Your task to perform on an android device: Search for the new iphone 13 pro on Etsy. Image 0: 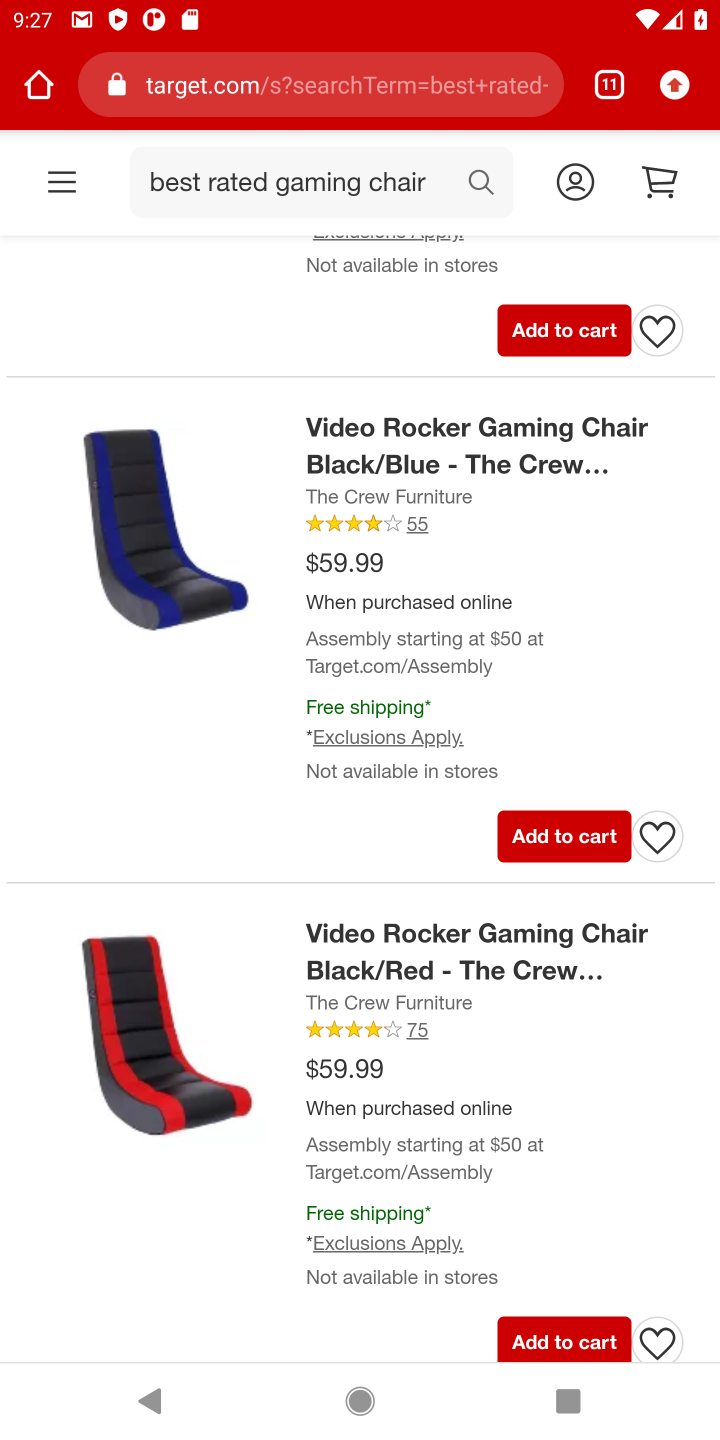
Step 0: press home button
Your task to perform on an android device: Search for the new iphone 13 pro on Etsy. Image 1: 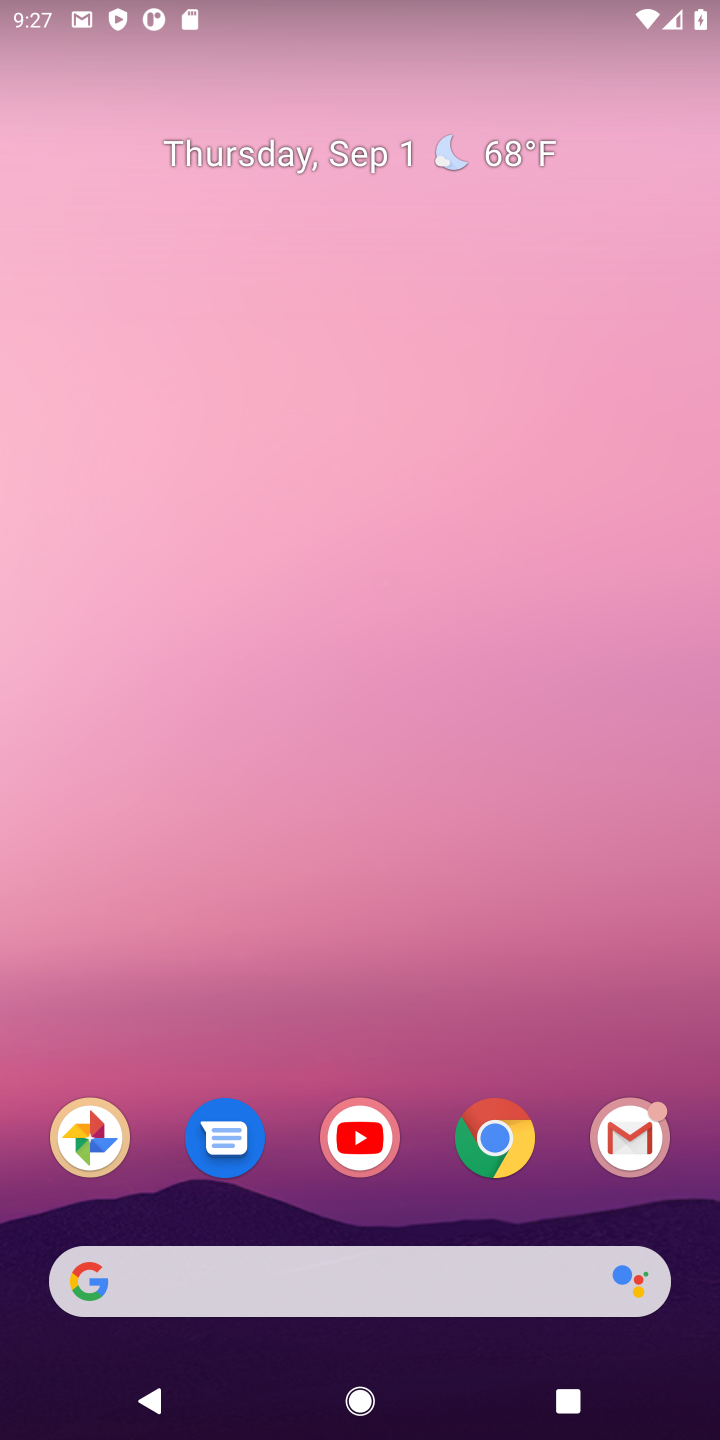
Step 1: click (498, 1143)
Your task to perform on an android device: Search for the new iphone 13 pro on Etsy. Image 2: 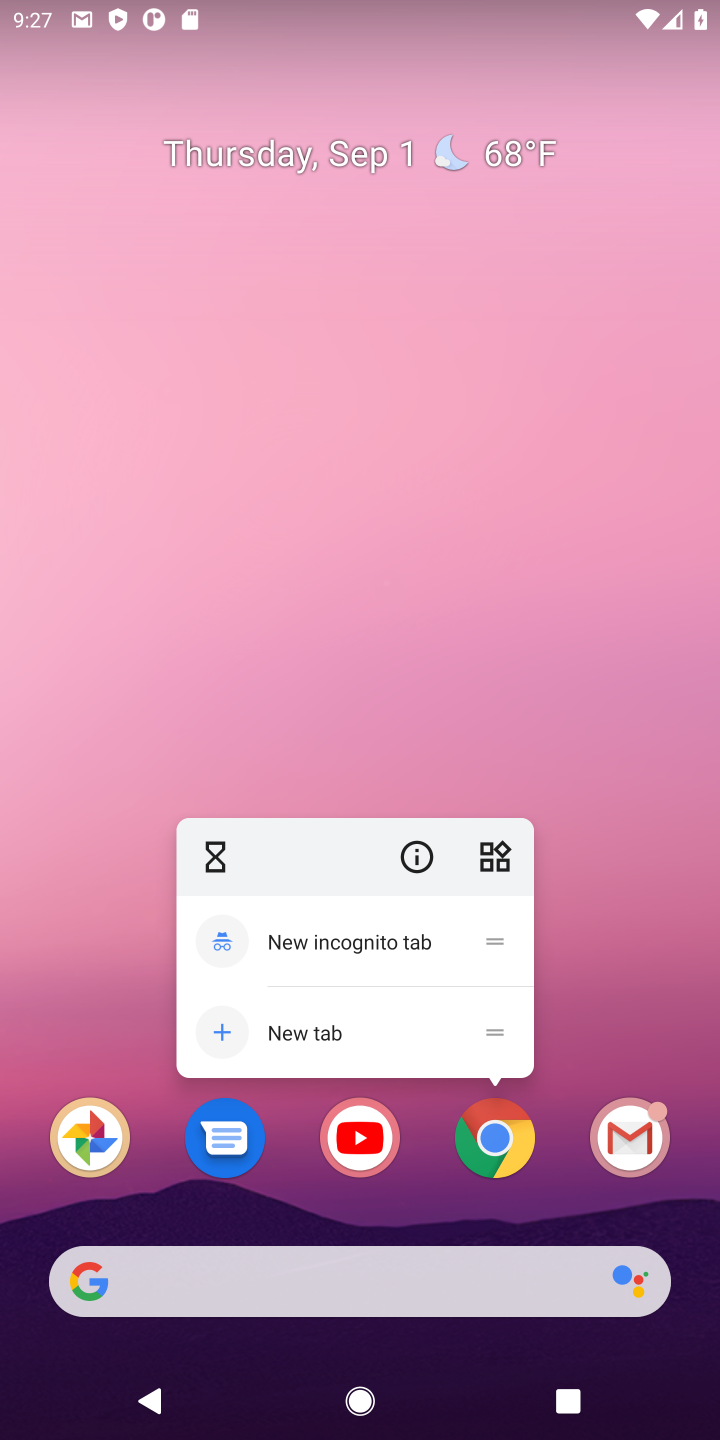
Step 2: click (498, 1143)
Your task to perform on an android device: Search for the new iphone 13 pro on Etsy. Image 3: 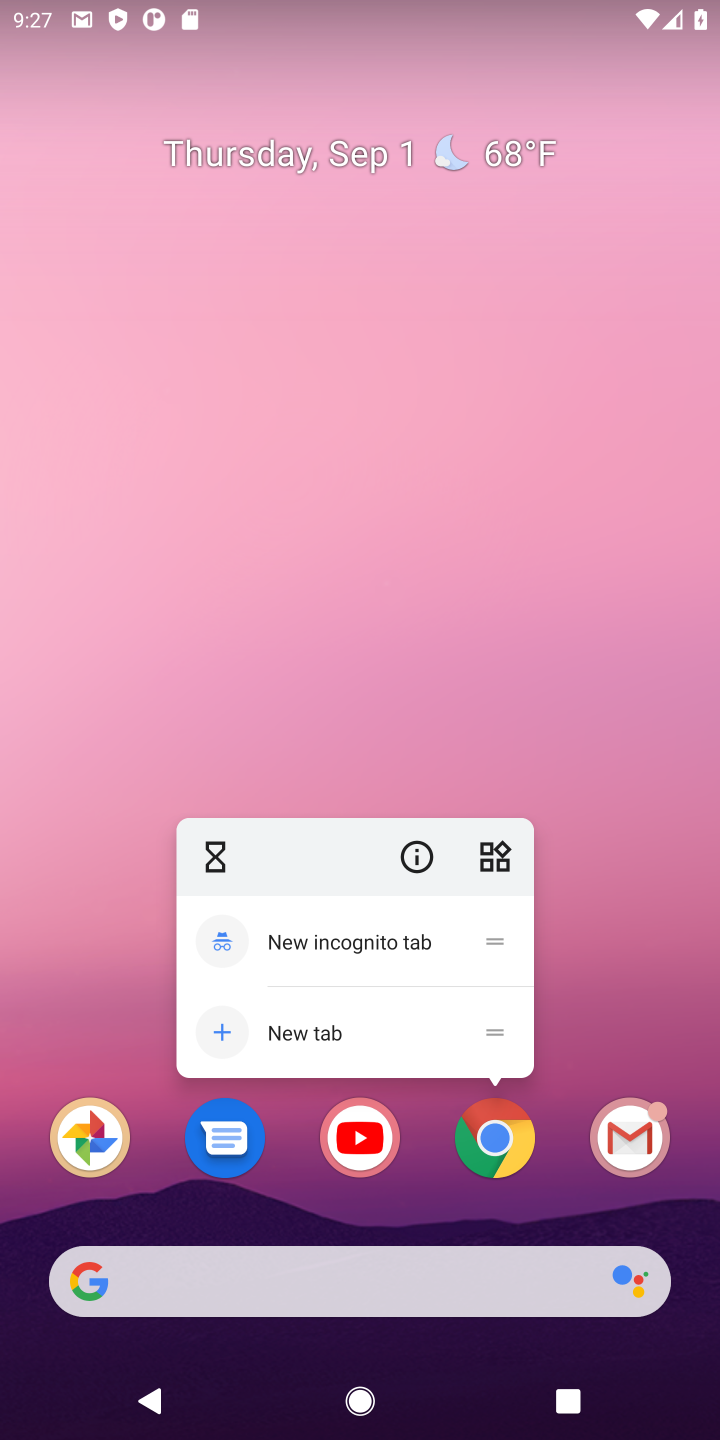
Step 3: click (498, 1142)
Your task to perform on an android device: Search for the new iphone 13 pro on Etsy. Image 4: 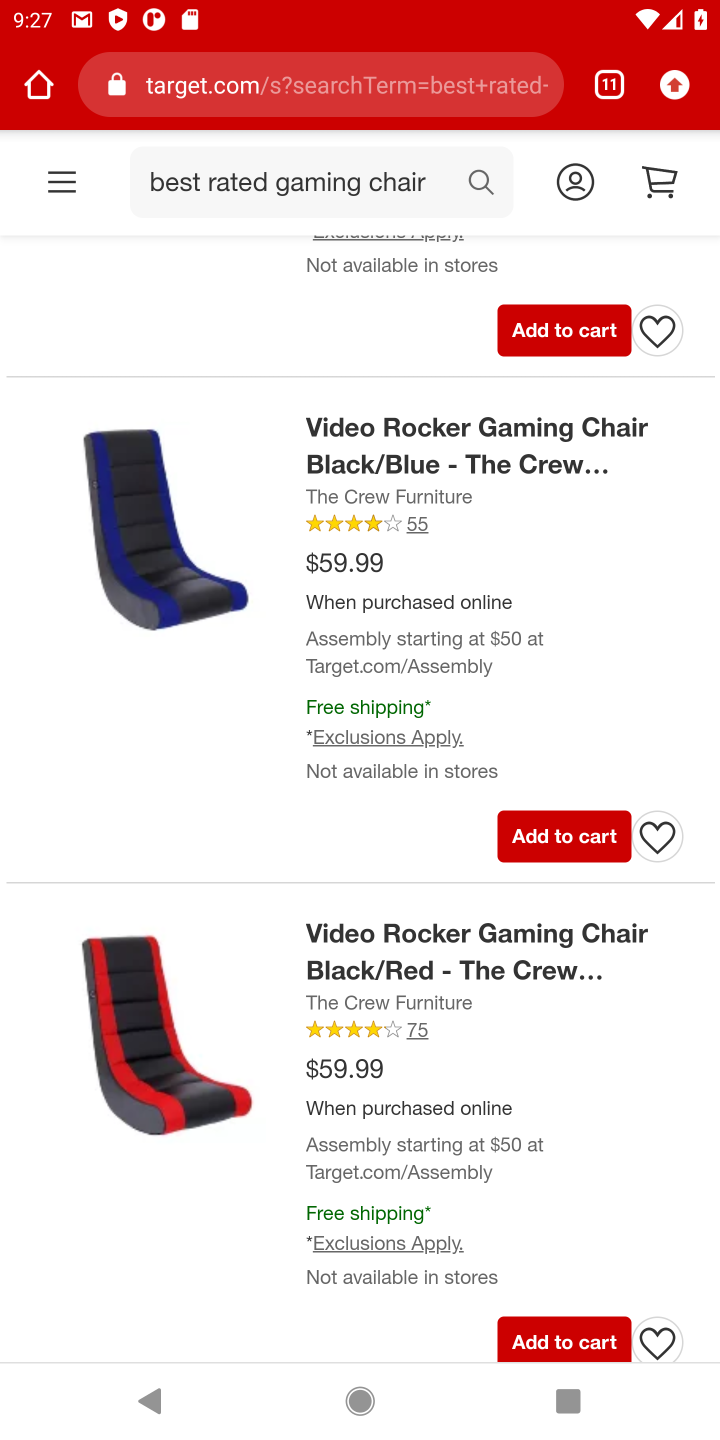
Step 4: click (612, 89)
Your task to perform on an android device: Search for the new iphone 13 pro on Etsy. Image 5: 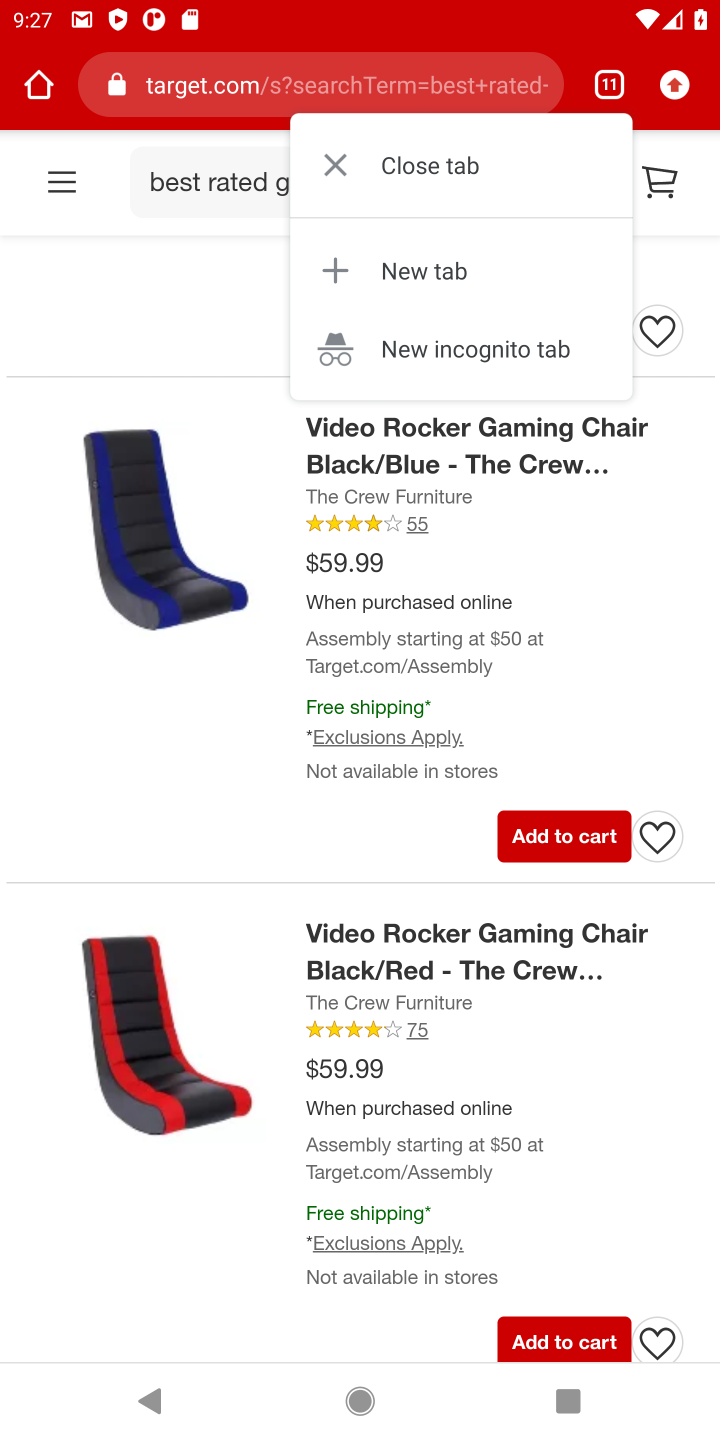
Step 5: click (347, 270)
Your task to perform on an android device: Search for the new iphone 13 pro on Etsy. Image 6: 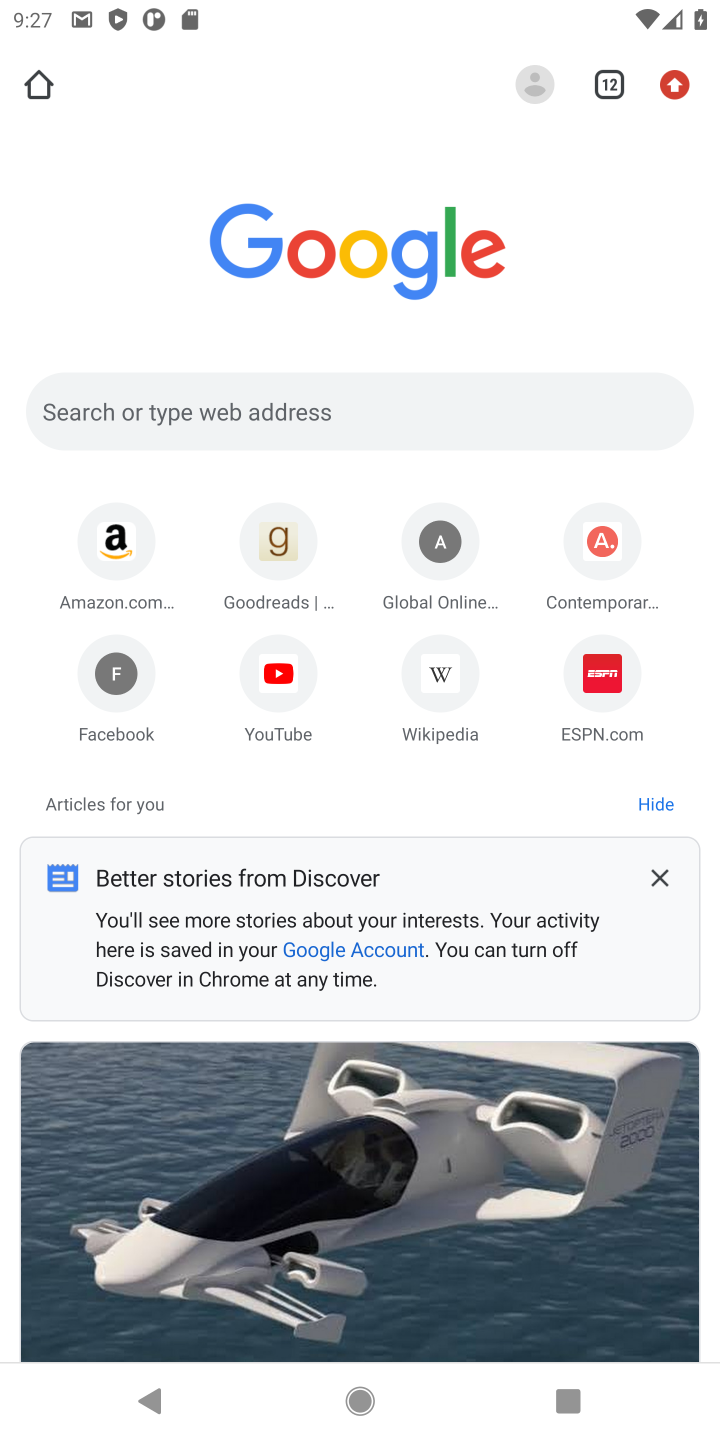
Step 6: click (310, 402)
Your task to perform on an android device: Search for the new iphone 13 pro on Etsy. Image 7: 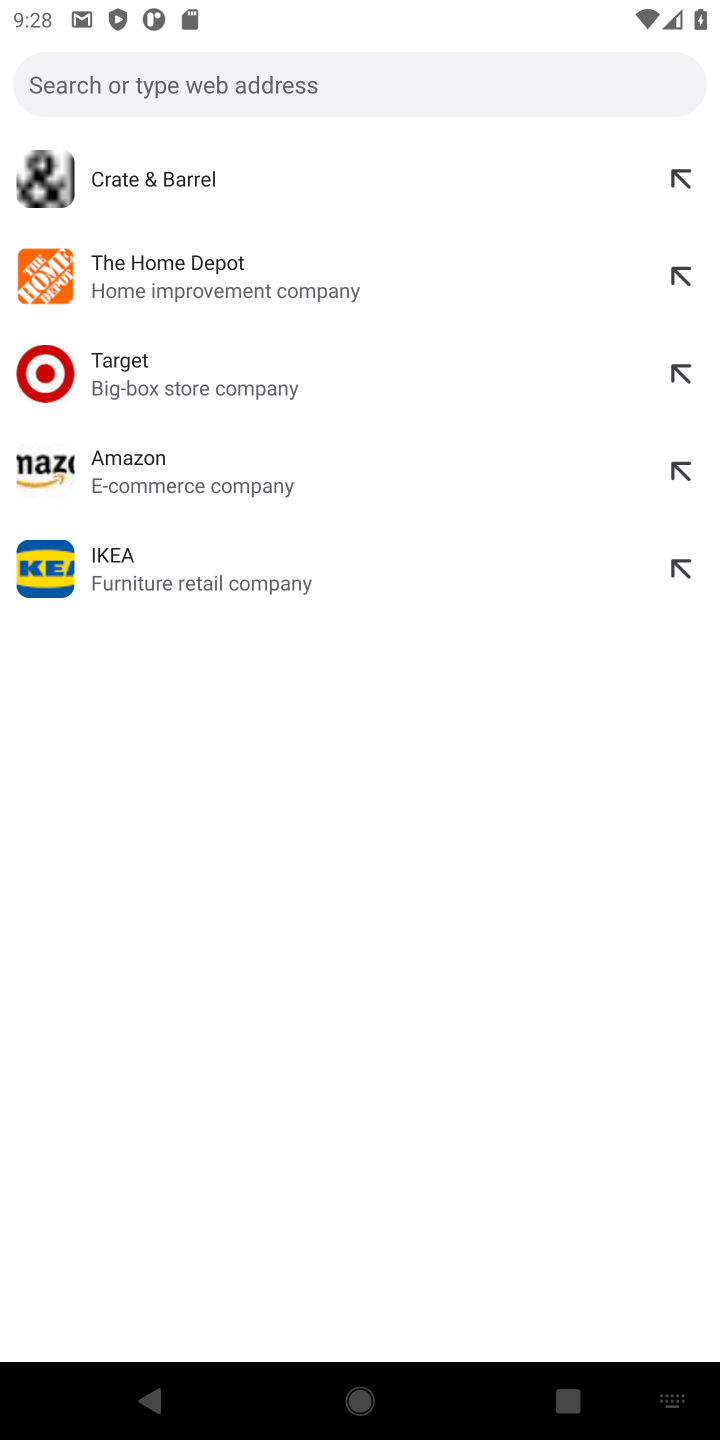
Step 7: type "etsy"
Your task to perform on an android device: Search for the new iphone 13 pro on Etsy. Image 8: 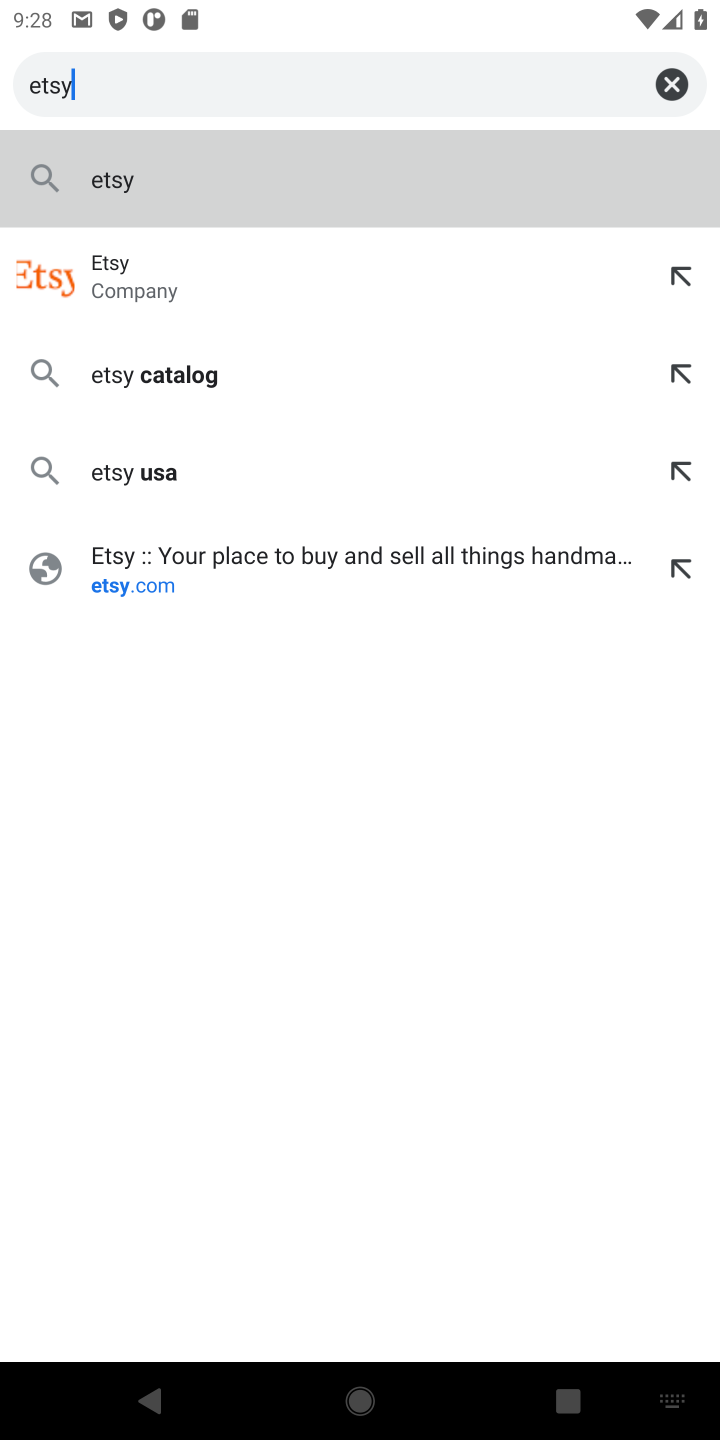
Step 8: click (157, 541)
Your task to perform on an android device: Search for the new iphone 13 pro on Etsy. Image 9: 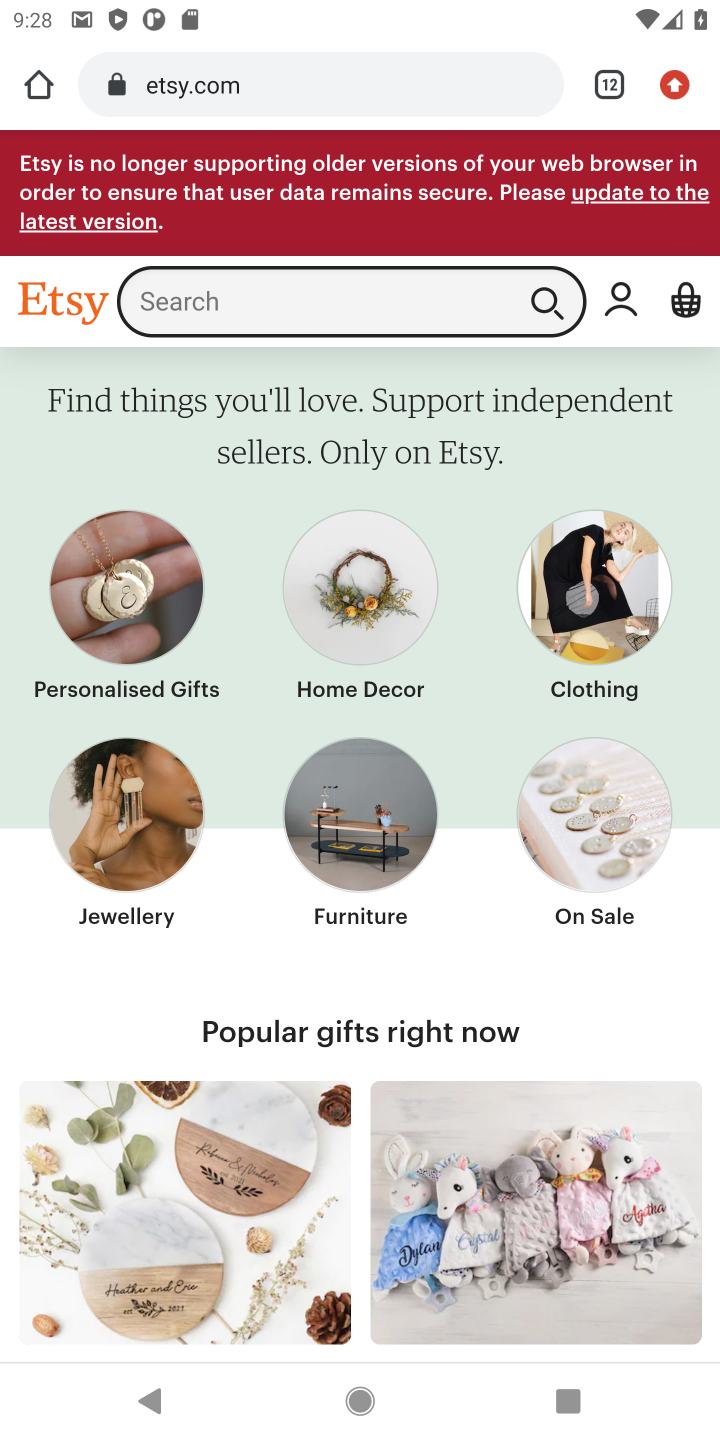
Step 9: click (472, 297)
Your task to perform on an android device: Search for the new iphone 13 pro on Etsy. Image 10: 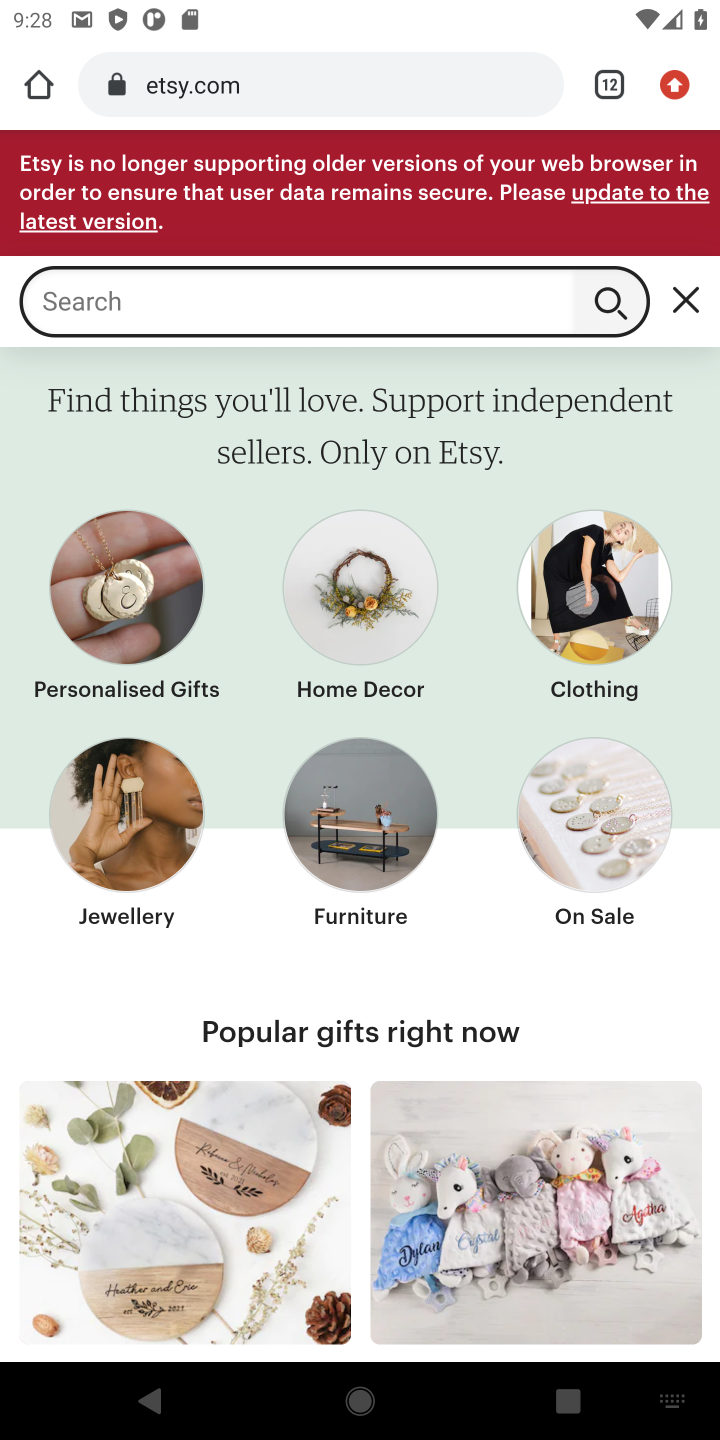
Step 10: click (257, 306)
Your task to perform on an android device: Search for the new iphone 13 pro on Etsy. Image 11: 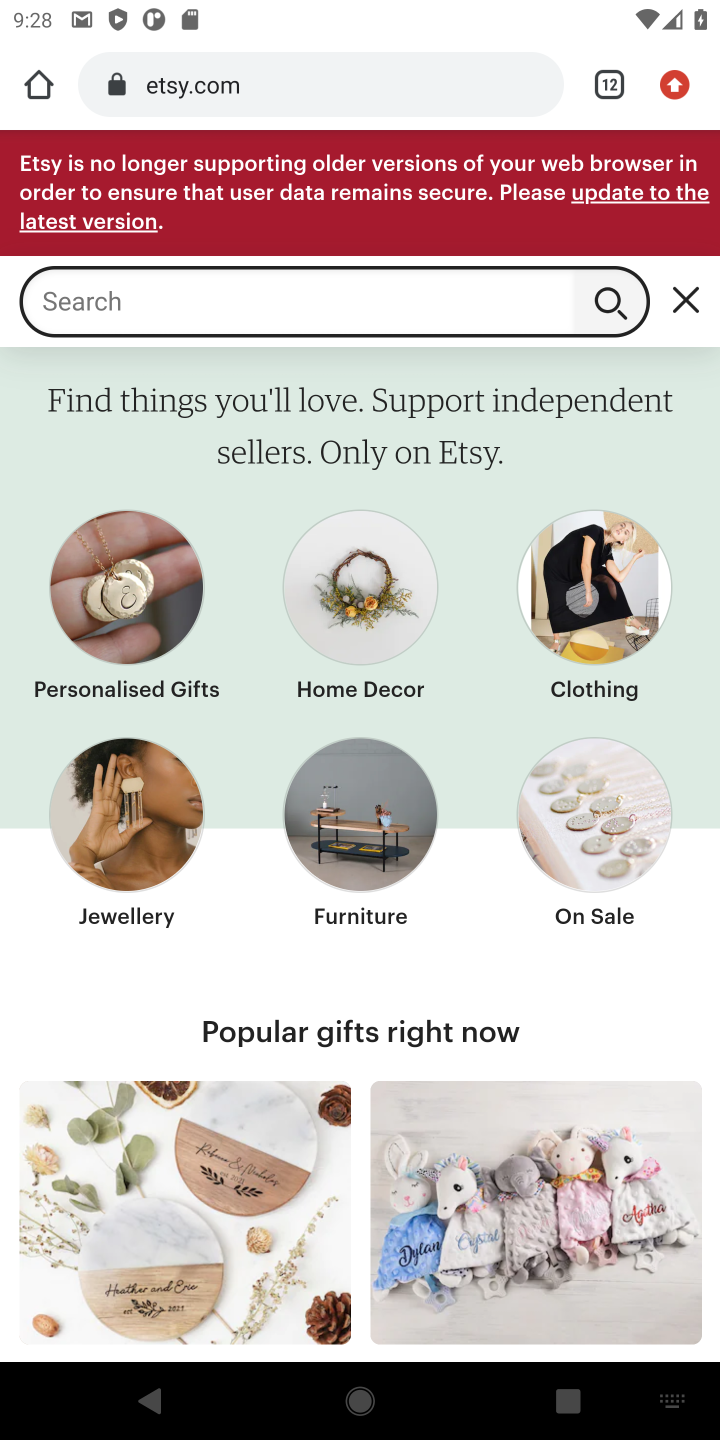
Step 11: type "iphone 13 pro "
Your task to perform on an android device: Search for the new iphone 13 pro on Etsy. Image 12: 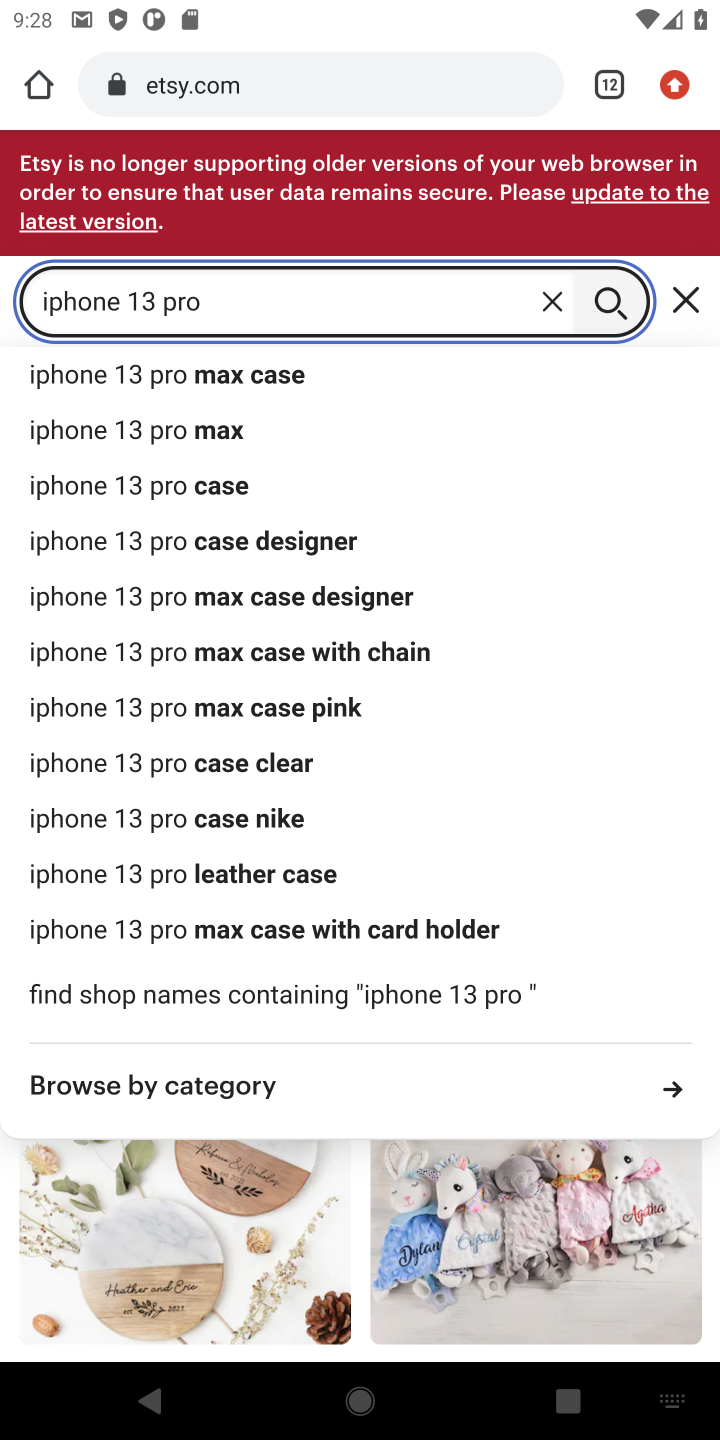
Step 12: click (609, 309)
Your task to perform on an android device: Search for the new iphone 13 pro on Etsy. Image 13: 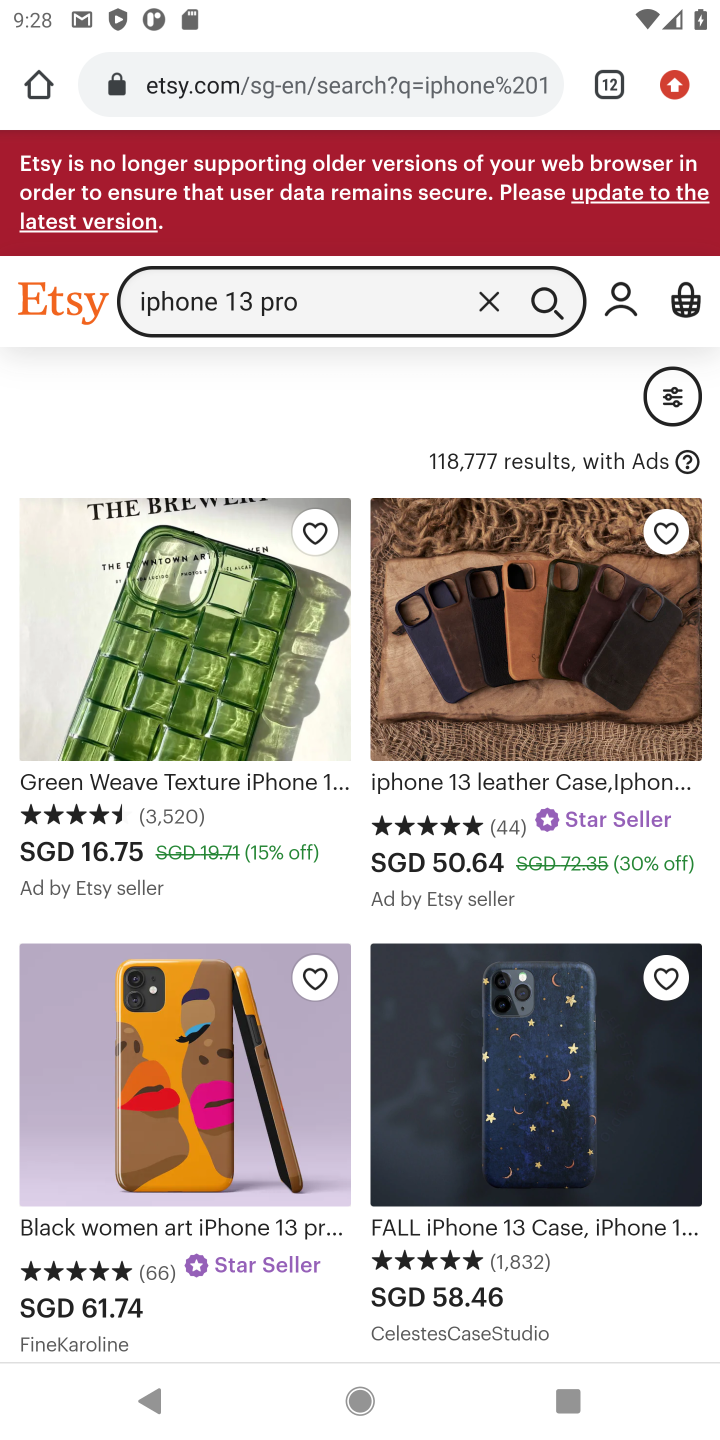
Step 13: drag from (319, 1275) to (293, 337)
Your task to perform on an android device: Search for the new iphone 13 pro on Etsy. Image 14: 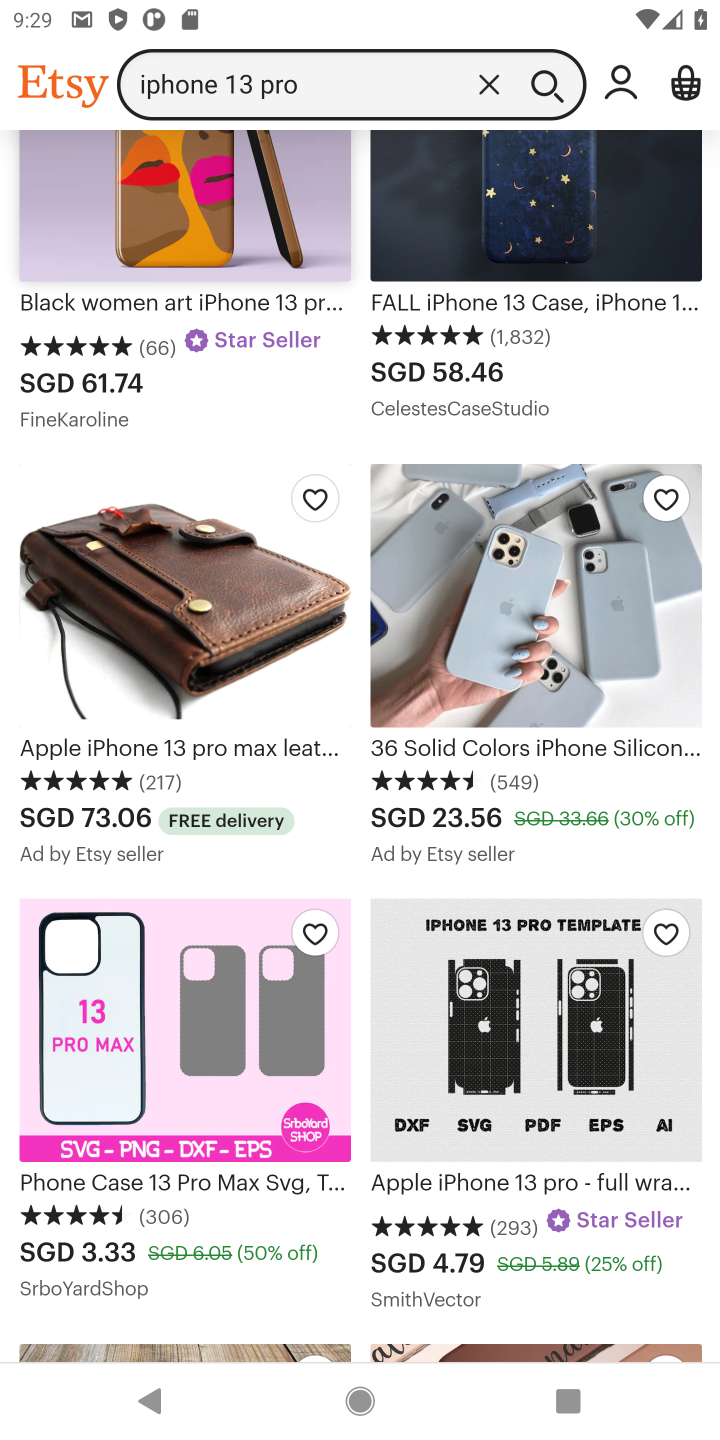
Step 14: drag from (365, 1312) to (314, 540)
Your task to perform on an android device: Search for the new iphone 13 pro on Etsy. Image 15: 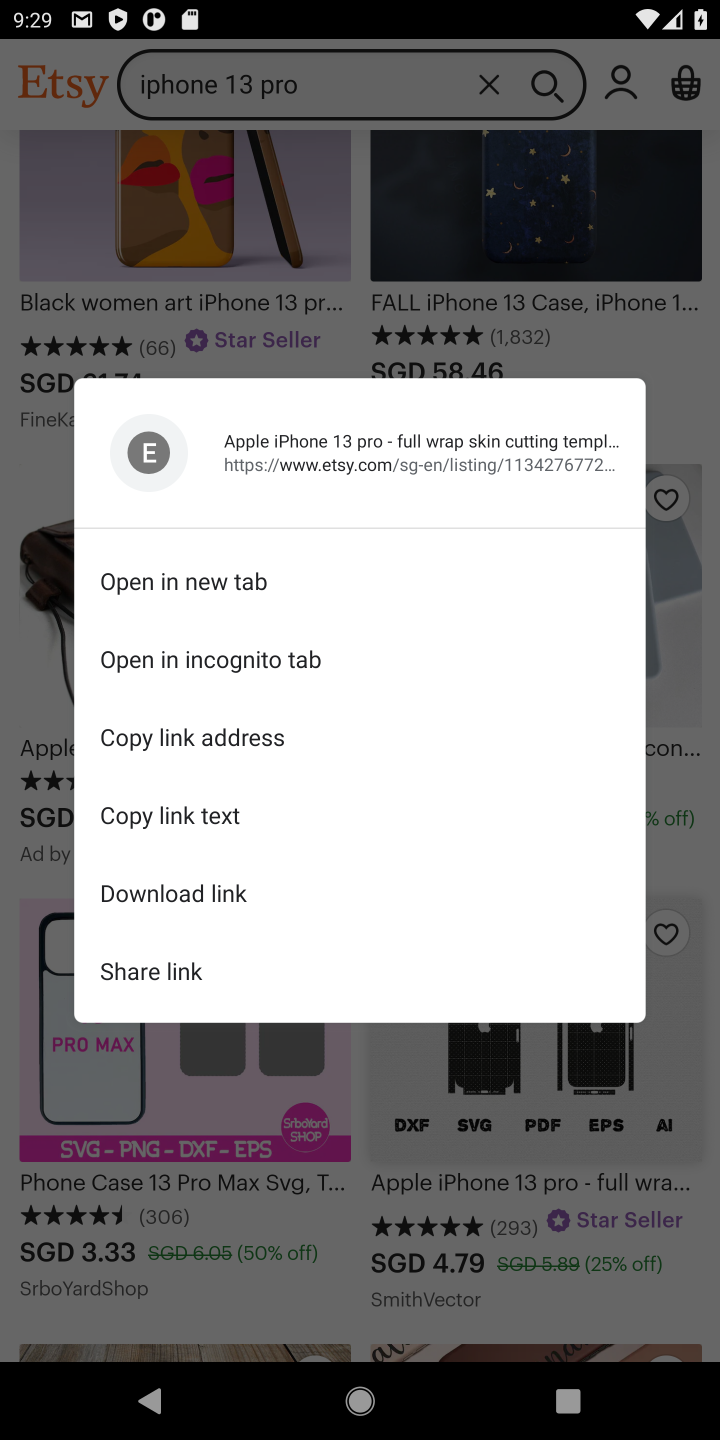
Step 15: click (307, 1214)
Your task to perform on an android device: Search for the new iphone 13 pro on Etsy. Image 16: 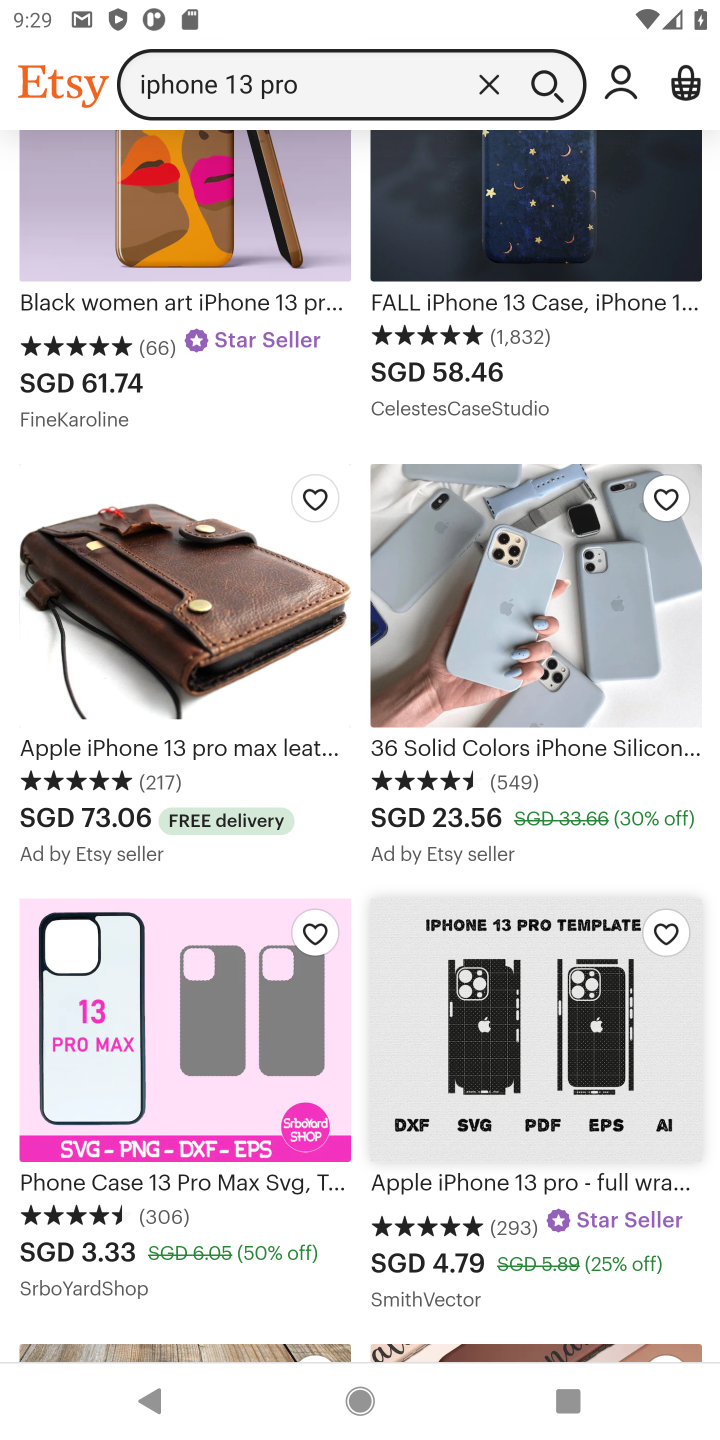
Step 16: task complete